Your task to perform on an android device: show emergency info Image 0: 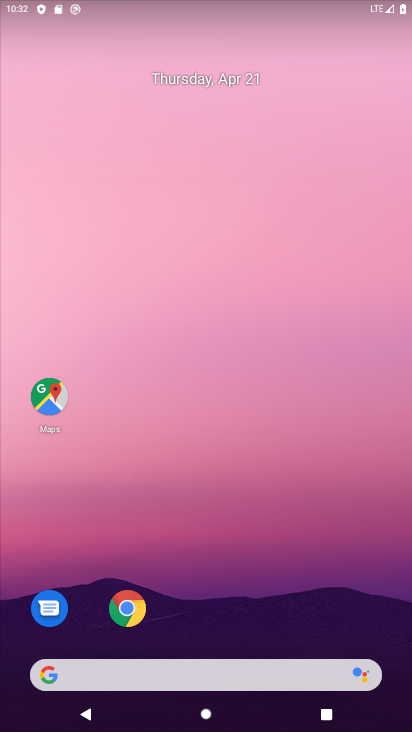
Step 0: press home button
Your task to perform on an android device: show emergency info Image 1: 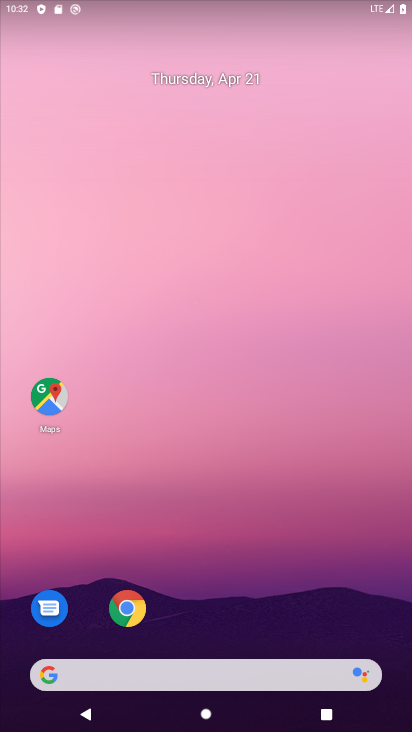
Step 1: drag from (237, 579) to (190, 89)
Your task to perform on an android device: show emergency info Image 2: 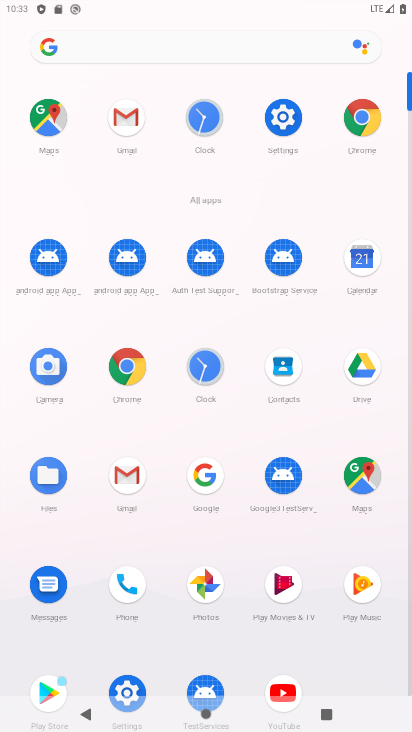
Step 2: click (279, 119)
Your task to perform on an android device: show emergency info Image 3: 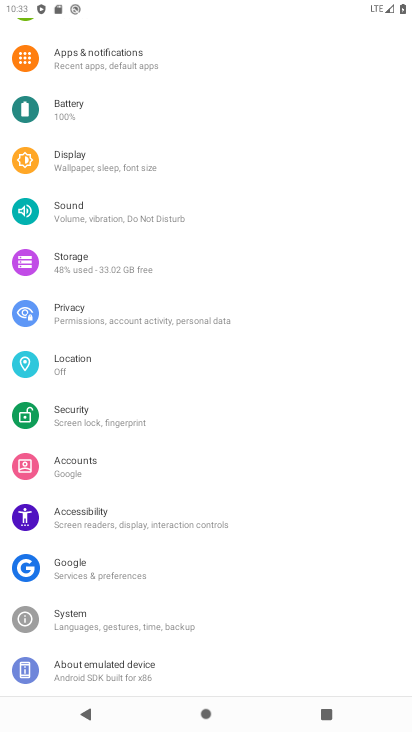
Step 3: drag from (342, 646) to (322, 206)
Your task to perform on an android device: show emergency info Image 4: 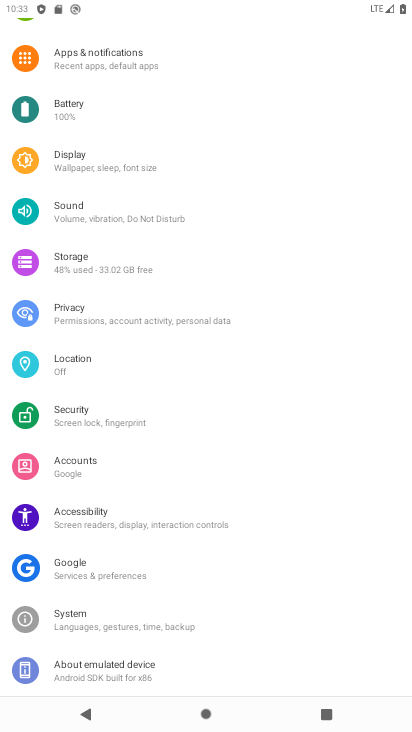
Step 4: click (118, 668)
Your task to perform on an android device: show emergency info Image 5: 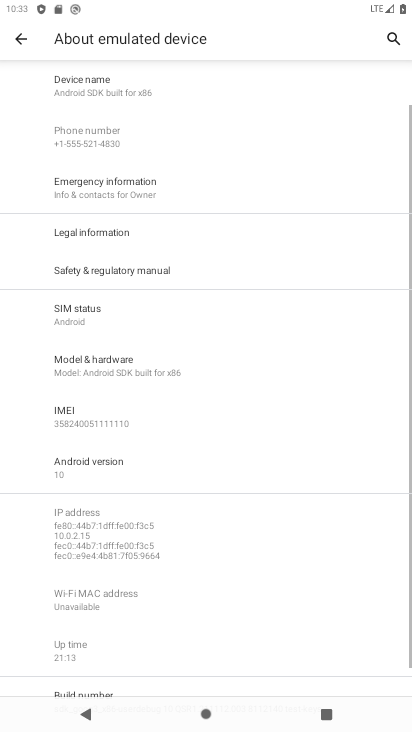
Step 5: click (112, 188)
Your task to perform on an android device: show emergency info Image 6: 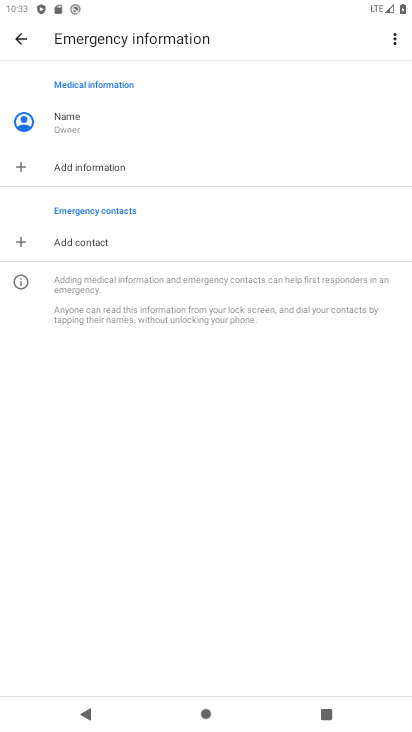
Step 6: task complete